Your task to perform on an android device: What's on my calendar tomorrow? Image 0: 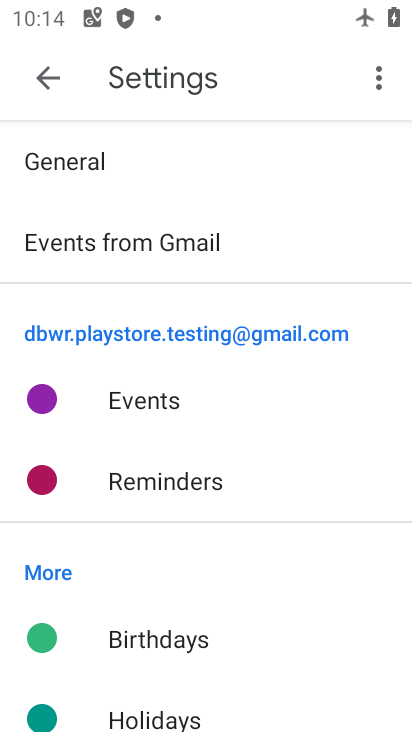
Step 0: press home button
Your task to perform on an android device: What's on my calendar tomorrow? Image 1: 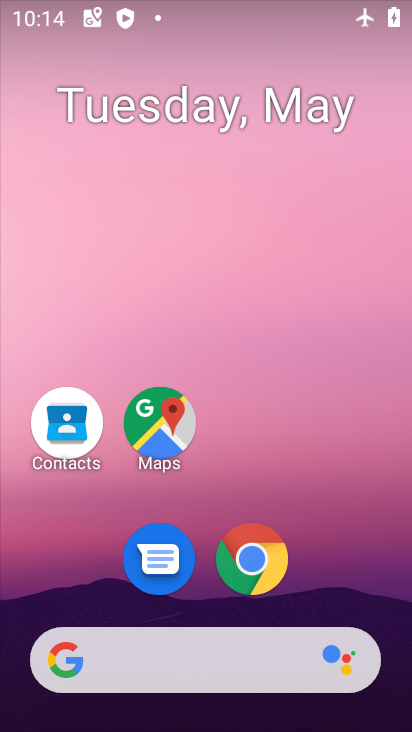
Step 1: drag from (389, 558) to (334, 98)
Your task to perform on an android device: What's on my calendar tomorrow? Image 2: 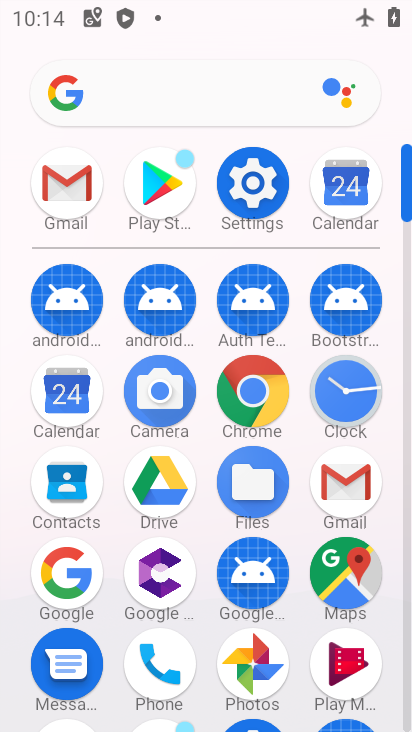
Step 2: click (332, 204)
Your task to perform on an android device: What's on my calendar tomorrow? Image 3: 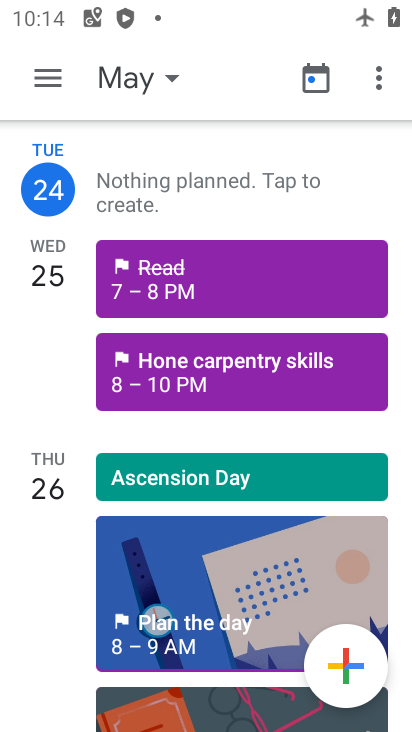
Step 3: task complete